Your task to perform on an android device: choose inbox layout in the gmail app Image 0: 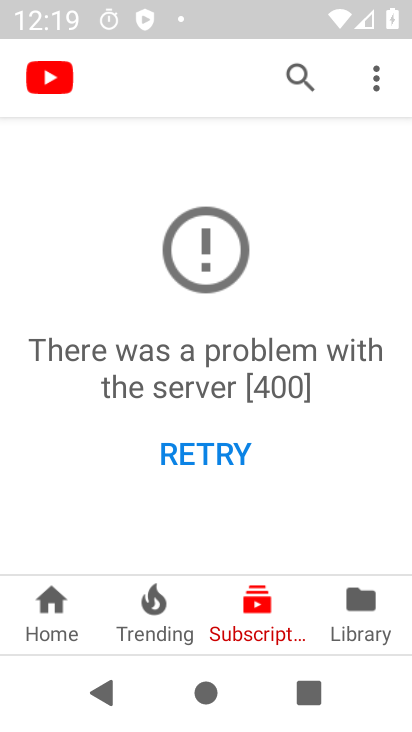
Step 0: press home button
Your task to perform on an android device: choose inbox layout in the gmail app Image 1: 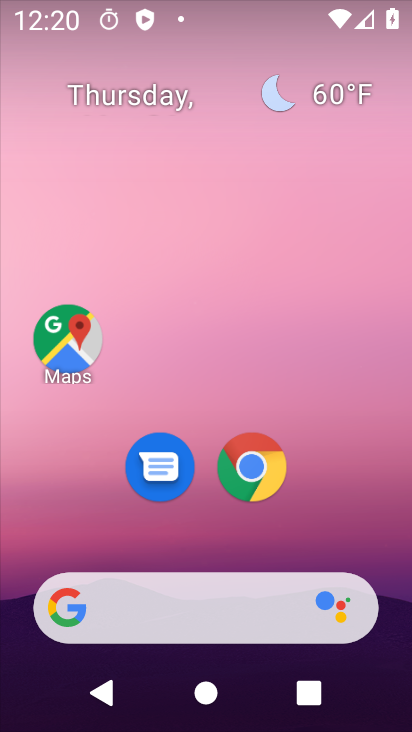
Step 1: drag from (243, 475) to (289, 23)
Your task to perform on an android device: choose inbox layout in the gmail app Image 2: 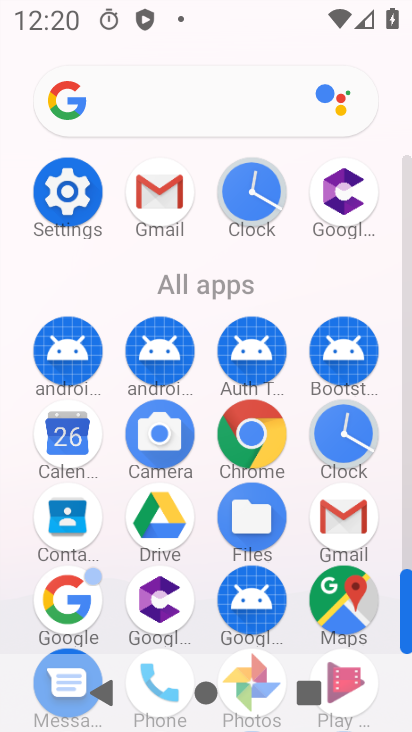
Step 2: click (346, 531)
Your task to perform on an android device: choose inbox layout in the gmail app Image 3: 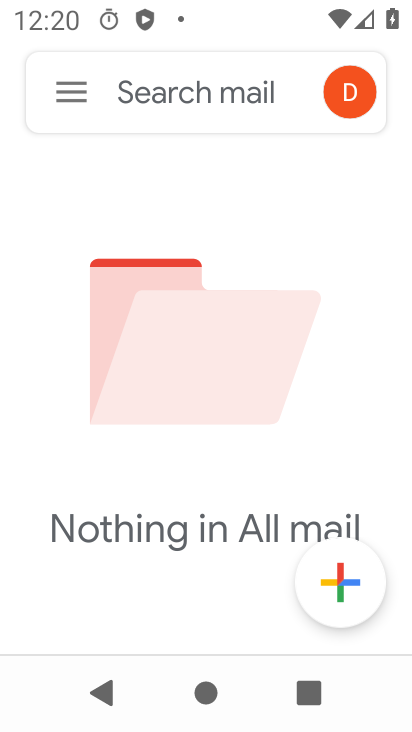
Step 3: click (58, 88)
Your task to perform on an android device: choose inbox layout in the gmail app Image 4: 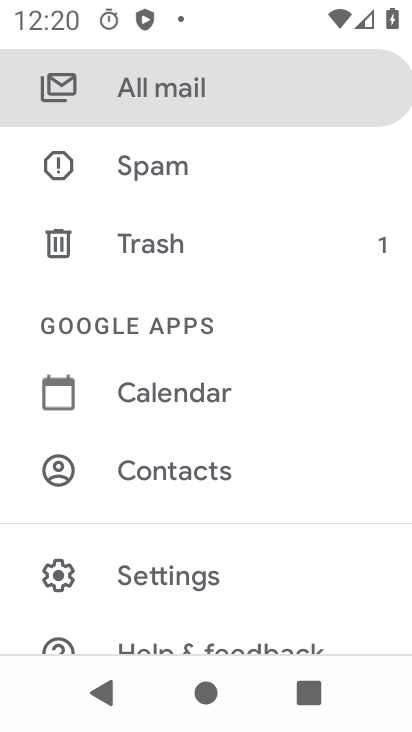
Step 4: drag from (175, 251) to (213, 10)
Your task to perform on an android device: choose inbox layout in the gmail app Image 5: 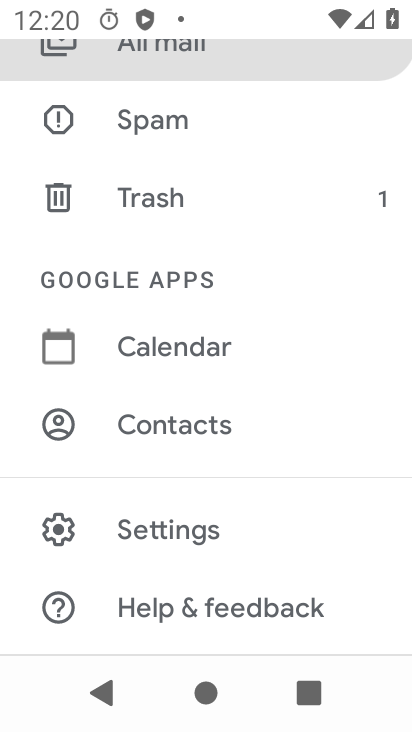
Step 5: click (197, 535)
Your task to perform on an android device: choose inbox layout in the gmail app Image 6: 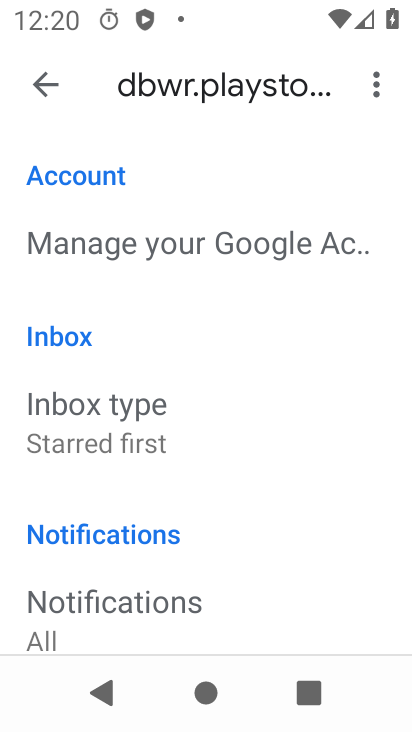
Step 6: click (108, 428)
Your task to perform on an android device: choose inbox layout in the gmail app Image 7: 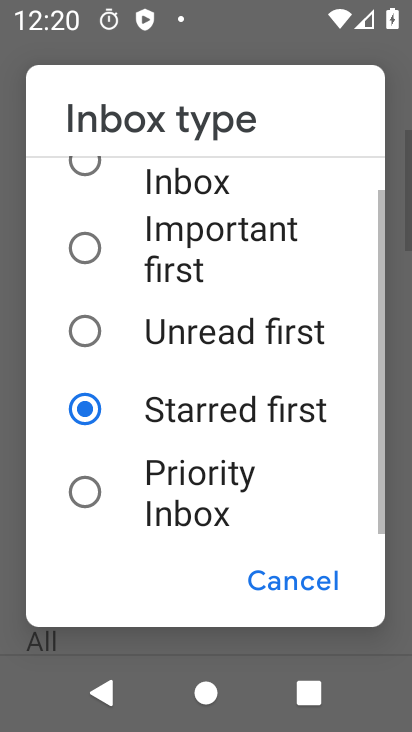
Step 7: drag from (147, 302) to (177, 502)
Your task to perform on an android device: choose inbox layout in the gmail app Image 8: 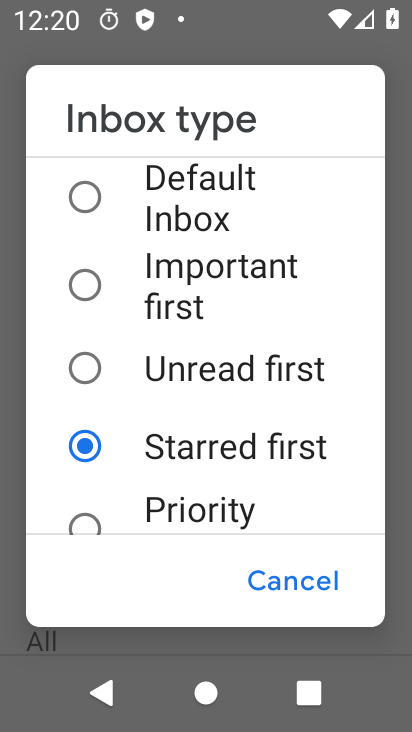
Step 8: click (155, 214)
Your task to perform on an android device: choose inbox layout in the gmail app Image 9: 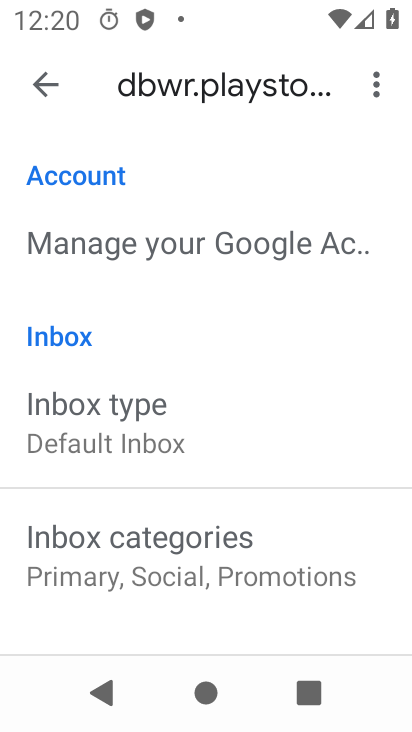
Step 9: task complete